Your task to perform on an android device: Search for Mexican restaurants on Maps Image 0: 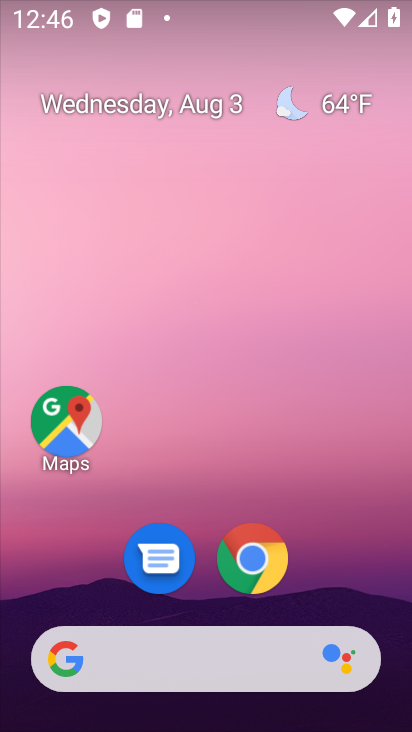
Step 0: click (82, 425)
Your task to perform on an android device: Search for Mexican restaurants on Maps Image 1: 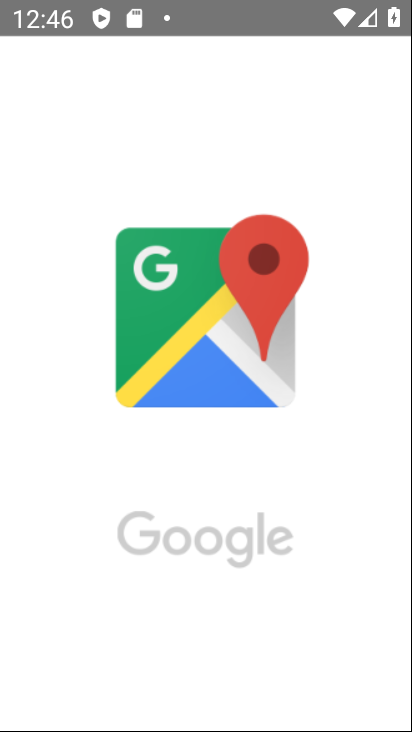
Step 1: drag from (372, 532) to (336, 382)
Your task to perform on an android device: Search for Mexican restaurants on Maps Image 2: 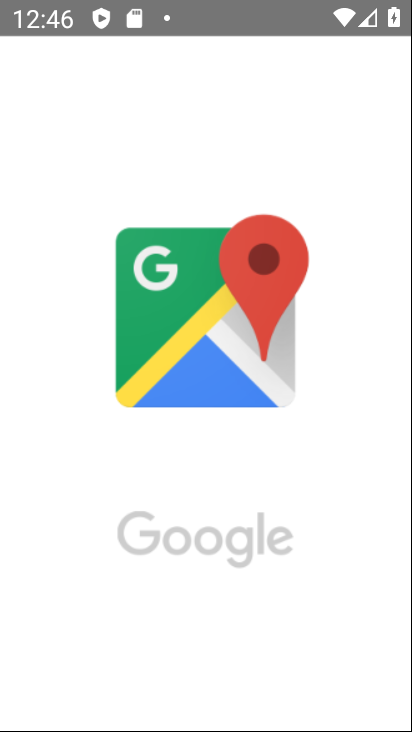
Step 2: drag from (375, 508) to (347, 432)
Your task to perform on an android device: Search for Mexican restaurants on Maps Image 3: 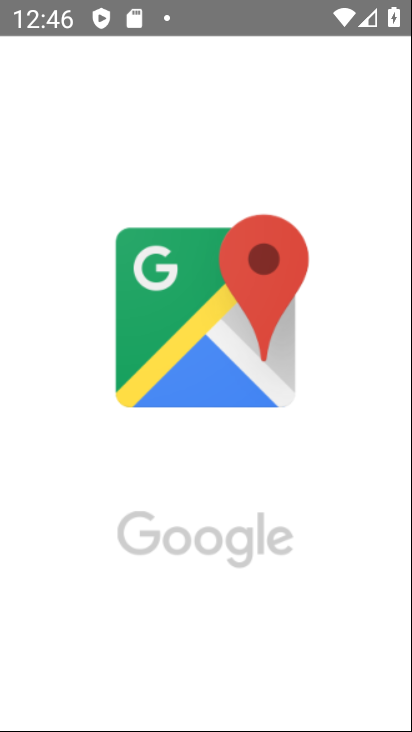
Step 3: press back button
Your task to perform on an android device: Search for Mexican restaurants on Maps Image 4: 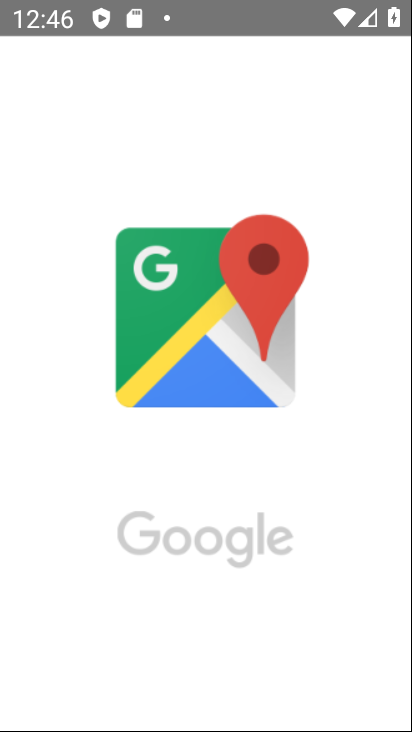
Step 4: press home button
Your task to perform on an android device: Search for Mexican restaurants on Maps Image 5: 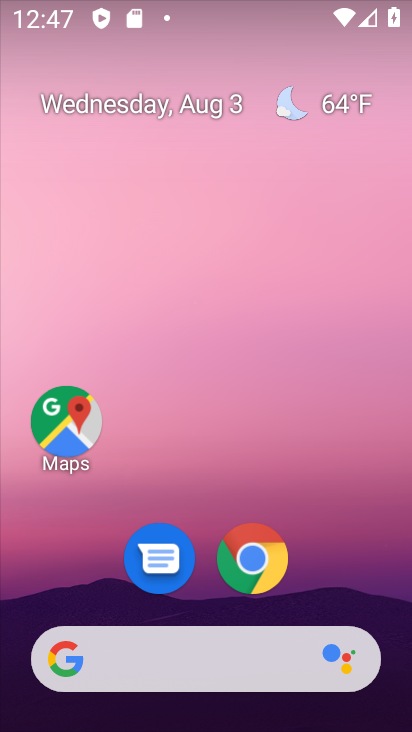
Step 5: click (80, 428)
Your task to perform on an android device: Search for Mexican restaurants on Maps Image 6: 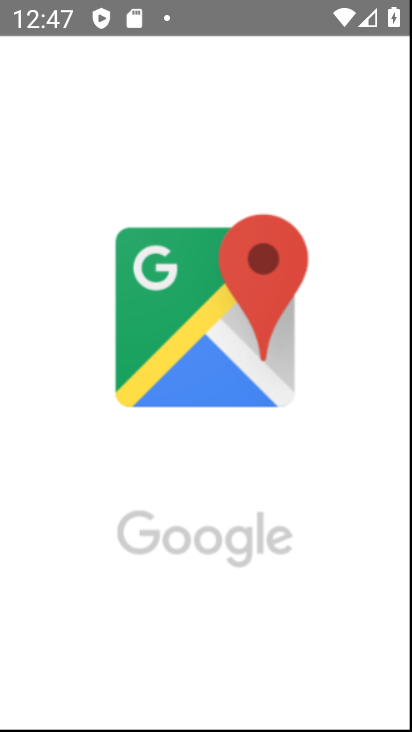
Step 6: drag from (330, 580) to (311, 382)
Your task to perform on an android device: Search for Mexican restaurants on Maps Image 7: 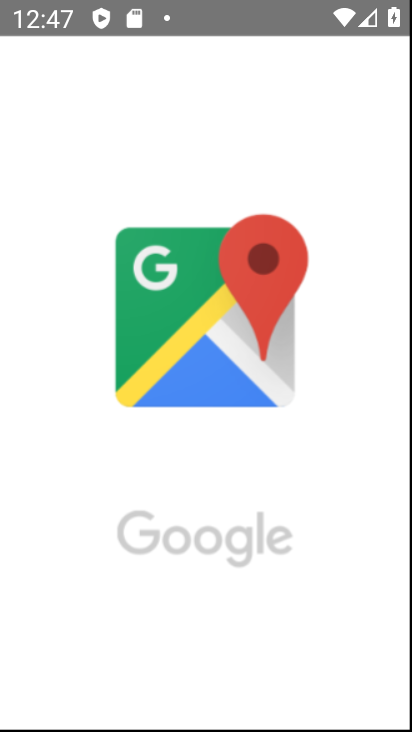
Step 7: press home button
Your task to perform on an android device: Search for Mexican restaurants on Maps Image 8: 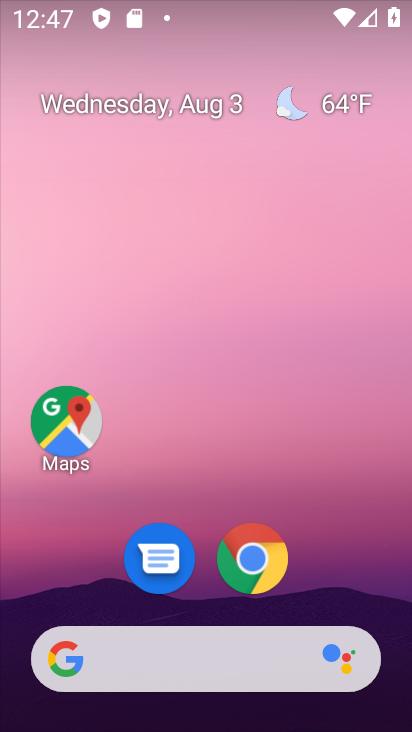
Step 8: click (70, 426)
Your task to perform on an android device: Search for Mexican restaurants on Maps Image 9: 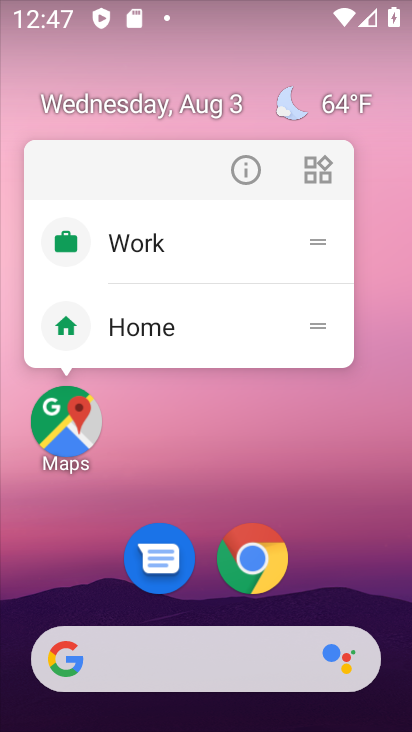
Step 9: click (242, 170)
Your task to perform on an android device: Search for Mexican restaurants on Maps Image 10: 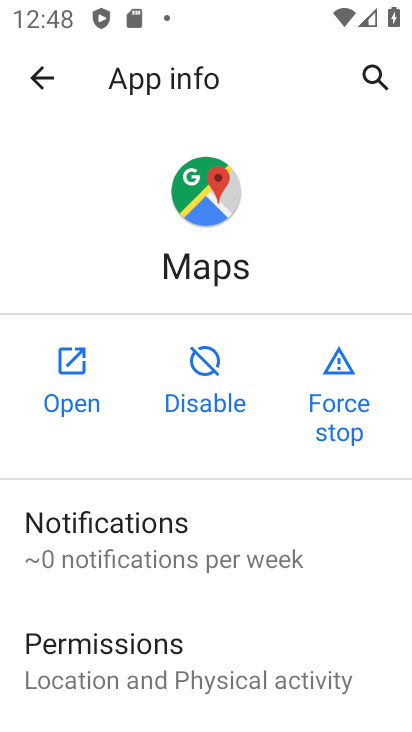
Step 10: click (252, 553)
Your task to perform on an android device: Search for Mexican restaurants on Maps Image 11: 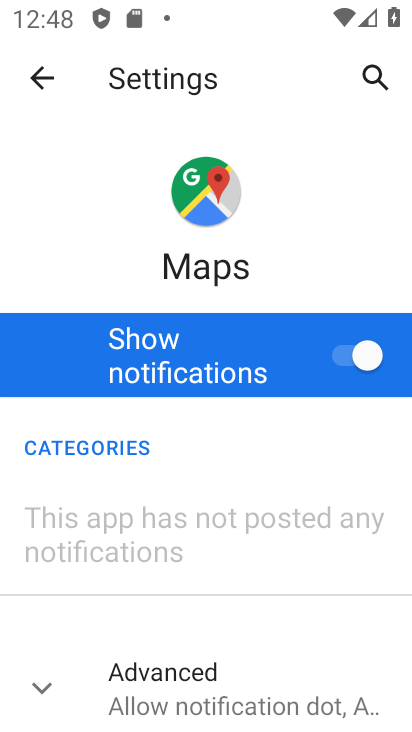
Step 11: click (54, 94)
Your task to perform on an android device: Search for Mexican restaurants on Maps Image 12: 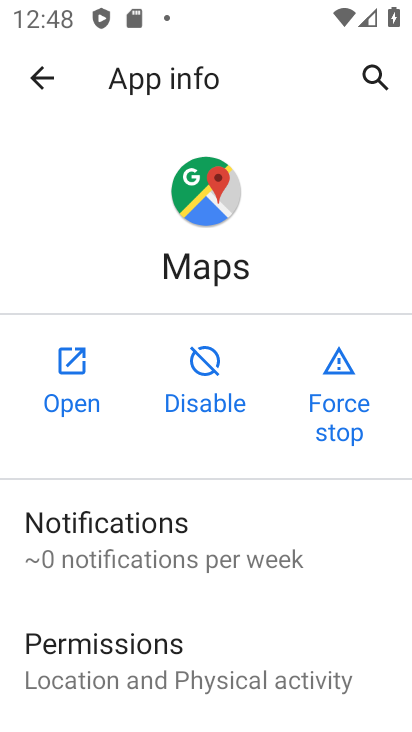
Step 12: drag from (203, 516) to (167, 308)
Your task to perform on an android device: Search for Mexican restaurants on Maps Image 13: 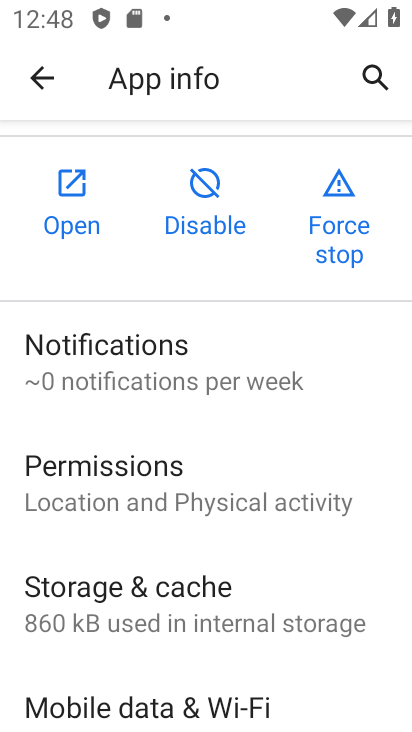
Step 13: click (217, 616)
Your task to perform on an android device: Search for Mexican restaurants on Maps Image 14: 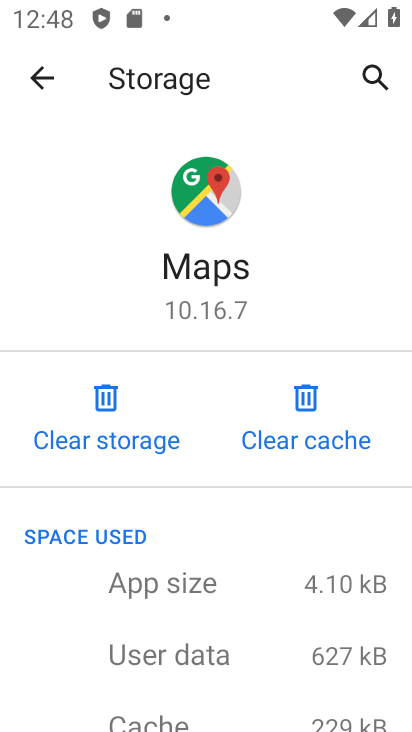
Step 14: click (311, 405)
Your task to perform on an android device: Search for Mexican restaurants on Maps Image 15: 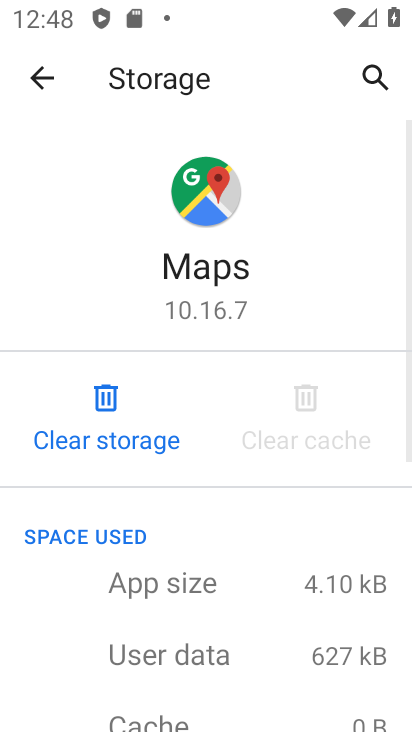
Step 15: click (101, 400)
Your task to perform on an android device: Search for Mexican restaurants on Maps Image 16: 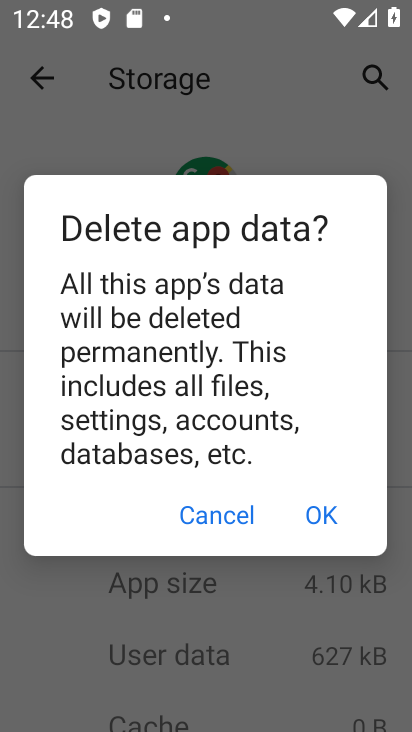
Step 16: click (329, 506)
Your task to perform on an android device: Search for Mexican restaurants on Maps Image 17: 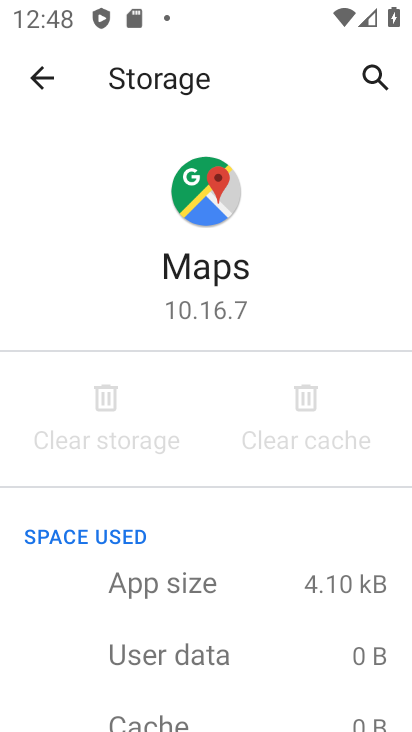
Step 17: press home button
Your task to perform on an android device: Search for Mexican restaurants on Maps Image 18: 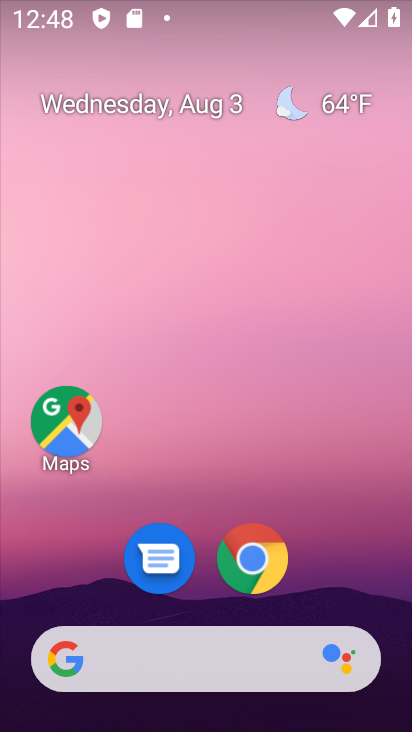
Step 18: click (87, 464)
Your task to perform on an android device: Search for Mexican restaurants on Maps Image 19: 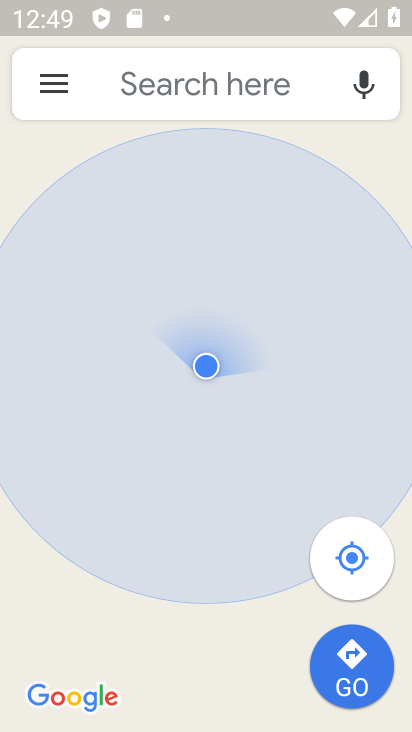
Step 19: click (188, 82)
Your task to perform on an android device: Search for Mexican restaurants on Maps Image 20: 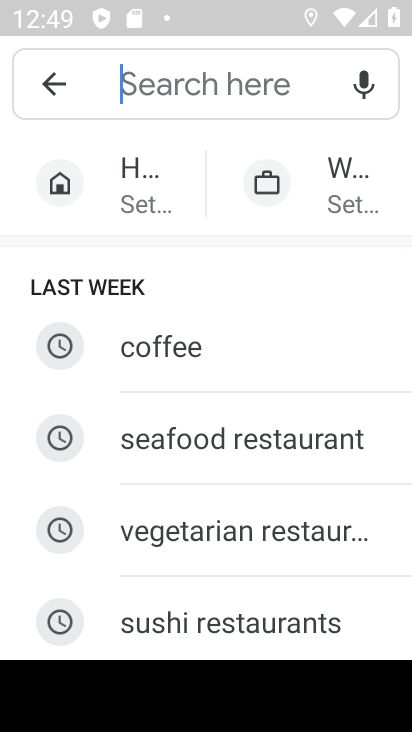
Step 20: type "mexican restaurants"
Your task to perform on an android device: Search for Mexican restaurants on Maps Image 21: 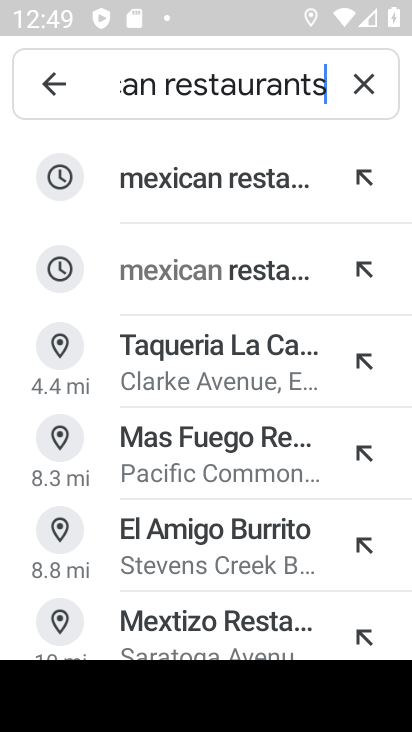
Step 21: click (207, 183)
Your task to perform on an android device: Search for Mexican restaurants on Maps Image 22: 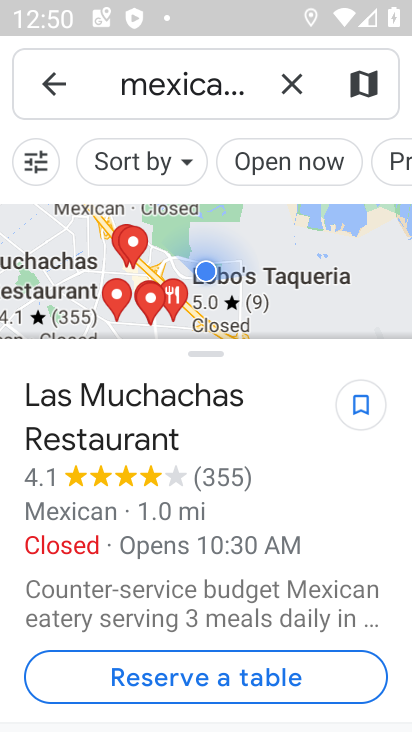
Step 22: task complete